Your task to perform on an android device: turn off location history Image 0: 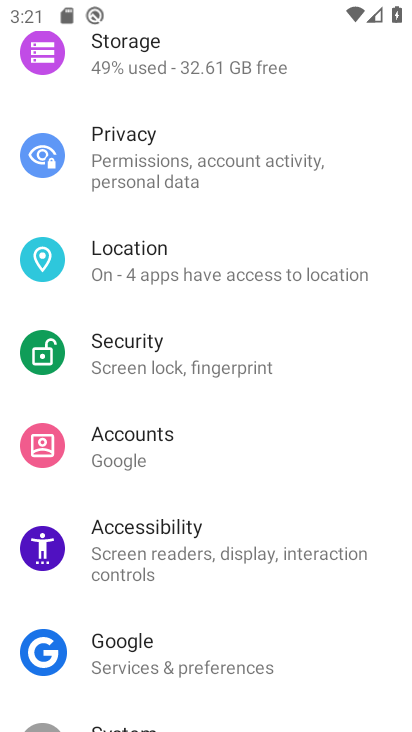
Step 0: click (214, 272)
Your task to perform on an android device: turn off location history Image 1: 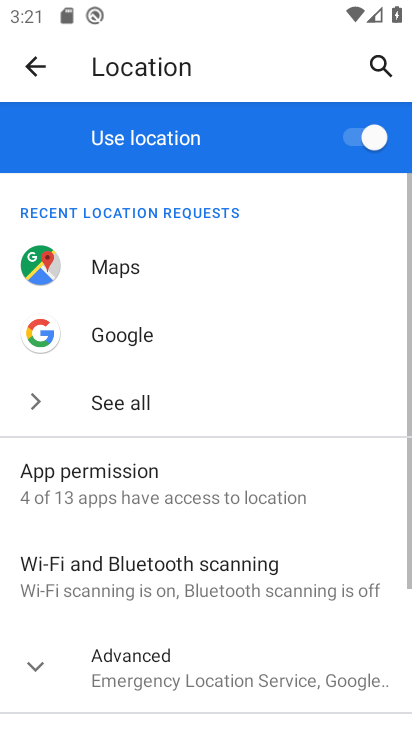
Step 1: click (37, 664)
Your task to perform on an android device: turn off location history Image 2: 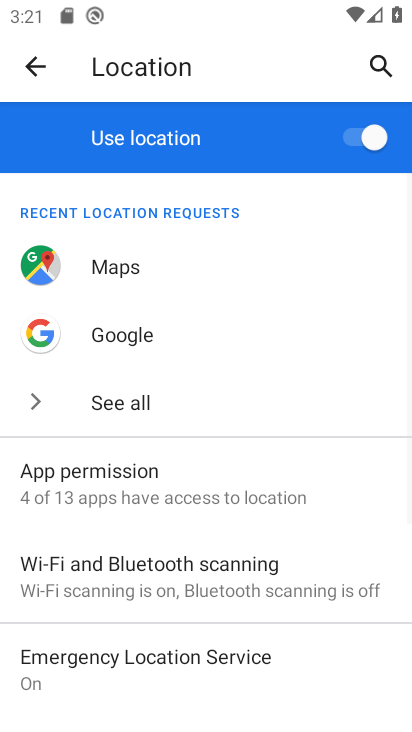
Step 2: drag from (254, 504) to (239, 37)
Your task to perform on an android device: turn off location history Image 3: 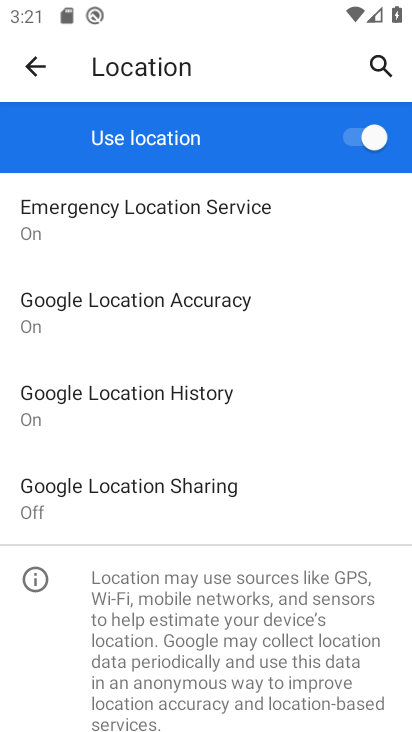
Step 3: click (182, 400)
Your task to perform on an android device: turn off location history Image 4: 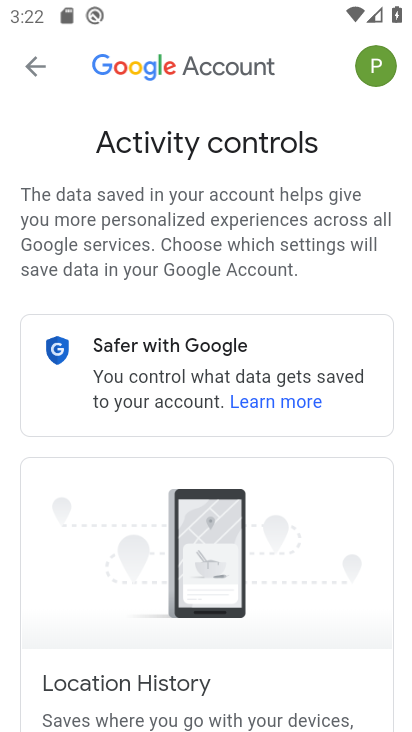
Step 4: task complete